Your task to perform on an android device: Open Google Maps and go to "Timeline" Image 0: 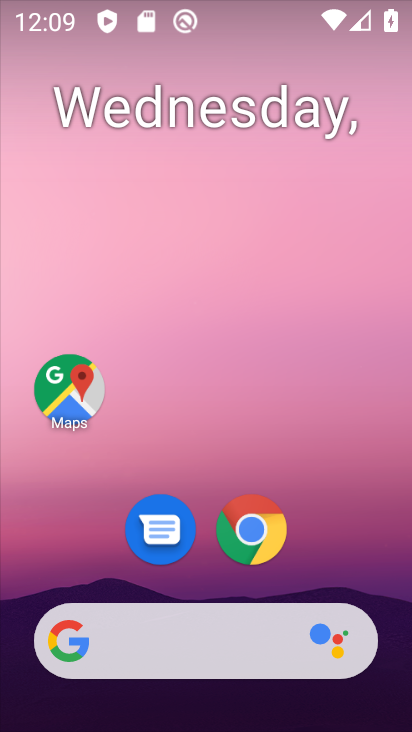
Step 0: click (69, 391)
Your task to perform on an android device: Open Google Maps and go to "Timeline" Image 1: 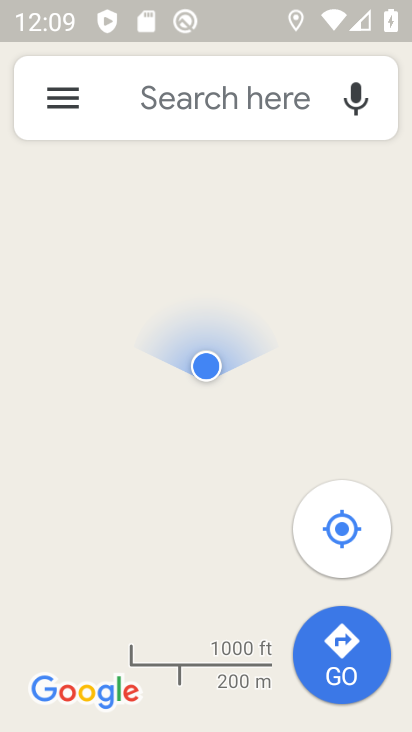
Step 1: click (61, 94)
Your task to perform on an android device: Open Google Maps and go to "Timeline" Image 2: 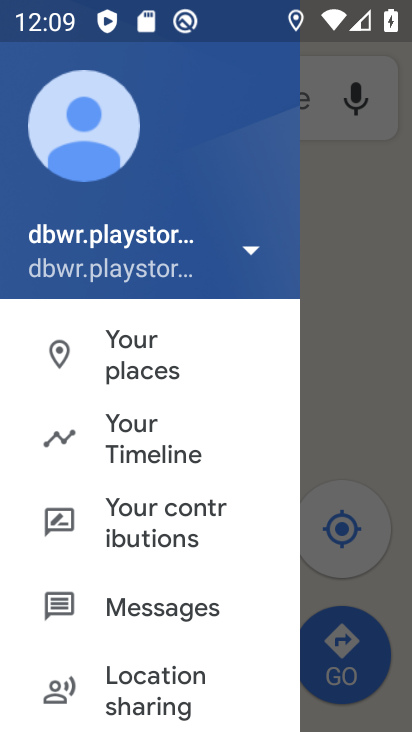
Step 2: click (159, 438)
Your task to perform on an android device: Open Google Maps and go to "Timeline" Image 3: 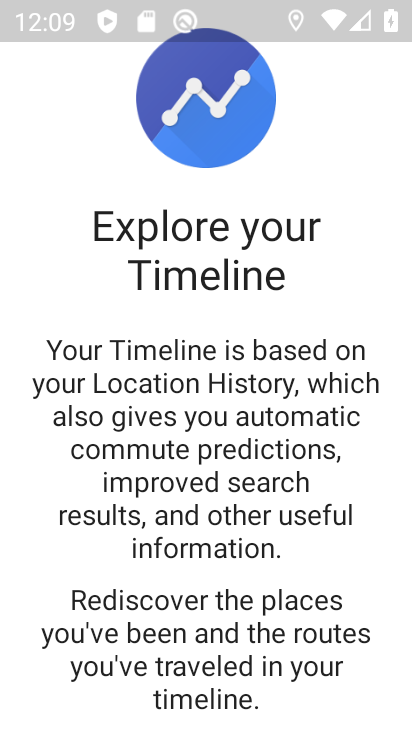
Step 3: task complete